Your task to perform on an android device: check storage Image 0: 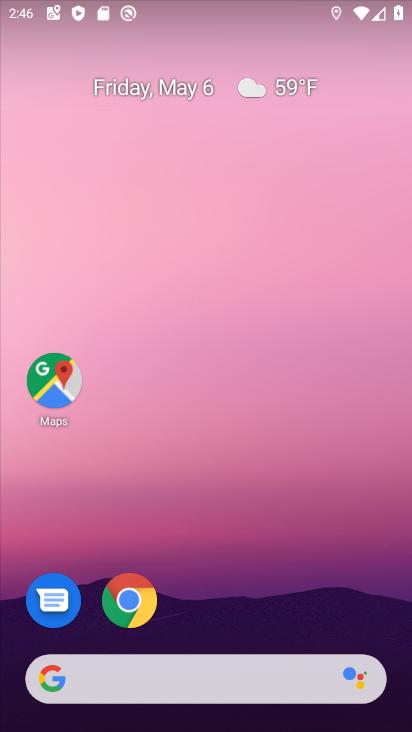
Step 0: drag from (220, 588) to (287, 40)
Your task to perform on an android device: check storage Image 1: 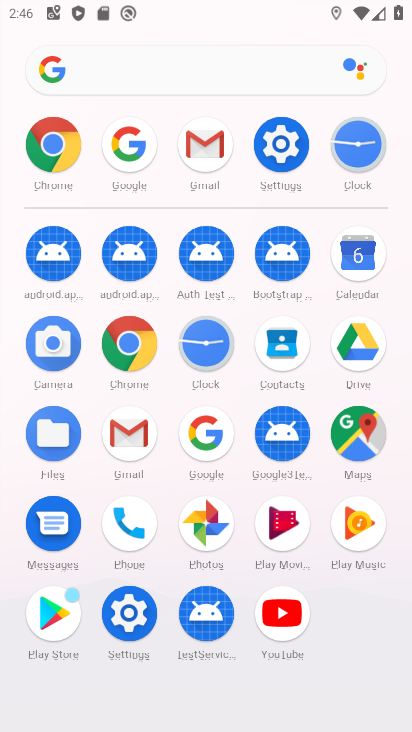
Step 1: click (283, 139)
Your task to perform on an android device: check storage Image 2: 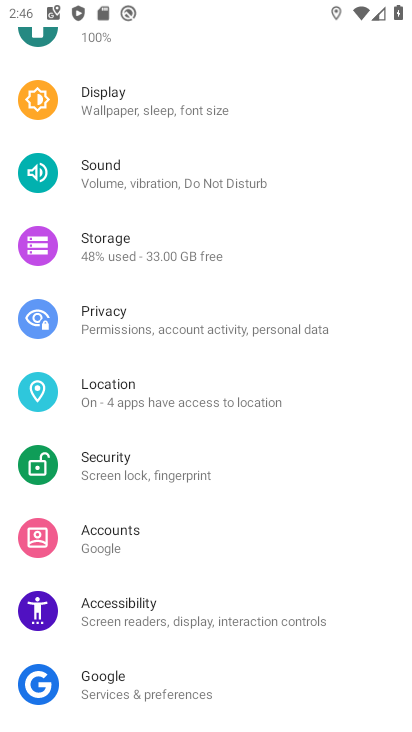
Step 2: click (117, 250)
Your task to perform on an android device: check storage Image 3: 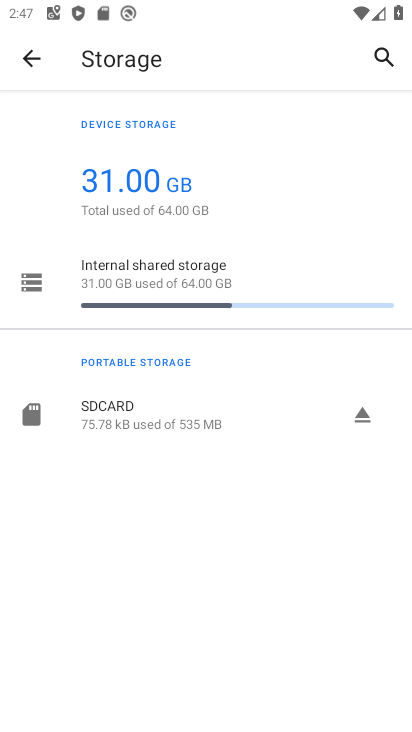
Step 3: task complete